Your task to perform on an android device: Open Google Chrome and open the bookmarks view Image 0: 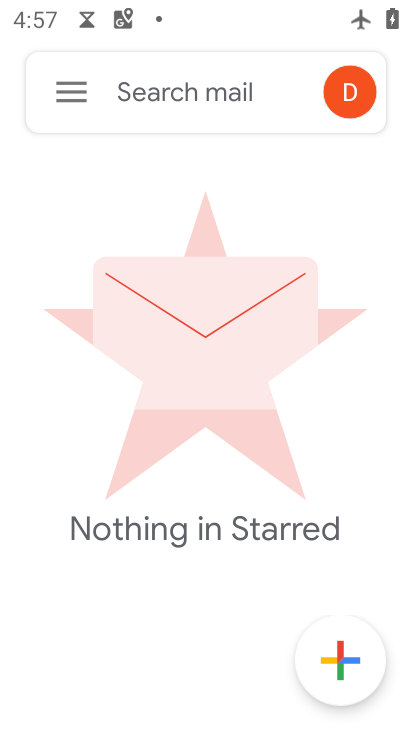
Step 0: press back button
Your task to perform on an android device: Open Google Chrome and open the bookmarks view Image 1: 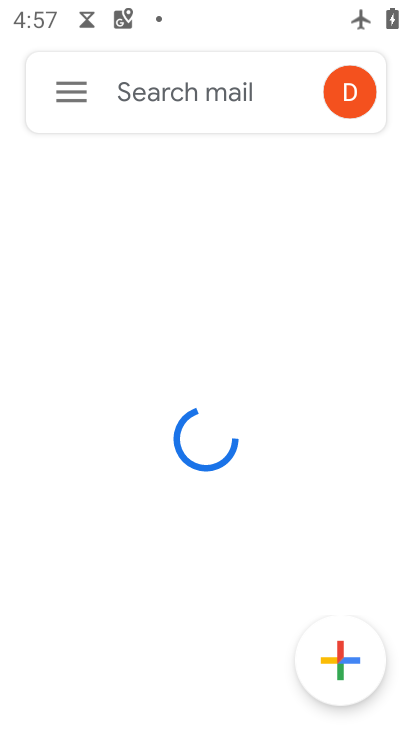
Step 1: press back button
Your task to perform on an android device: Open Google Chrome and open the bookmarks view Image 2: 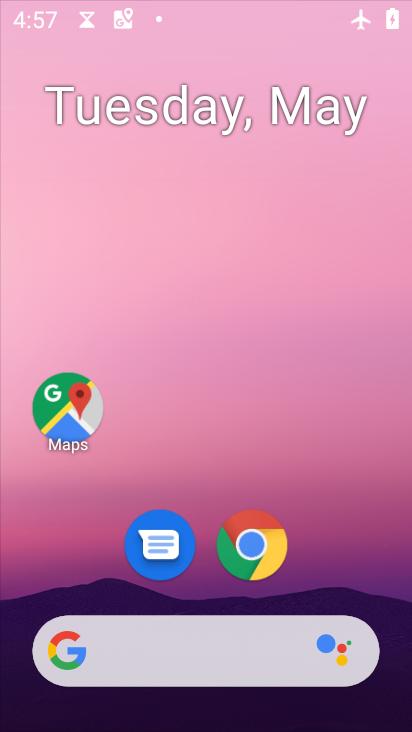
Step 2: press back button
Your task to perform on an android device: Open Google Chrome and open the bookmarks view Image 3: 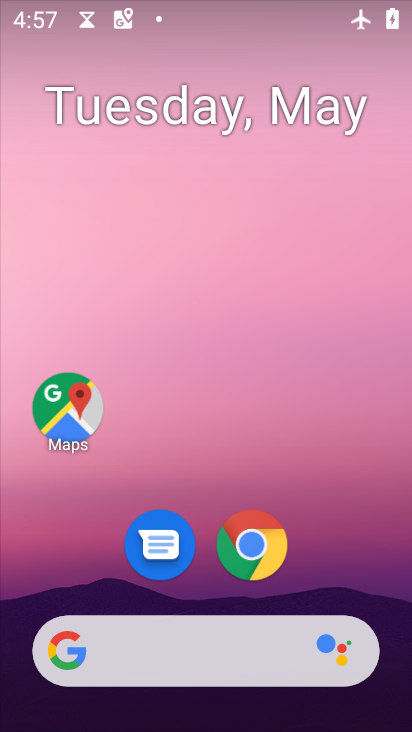
Step 3: click (254, 547)
Your task to perform on an android device: Open Google Chrome and open the bookmarks view Image 4: 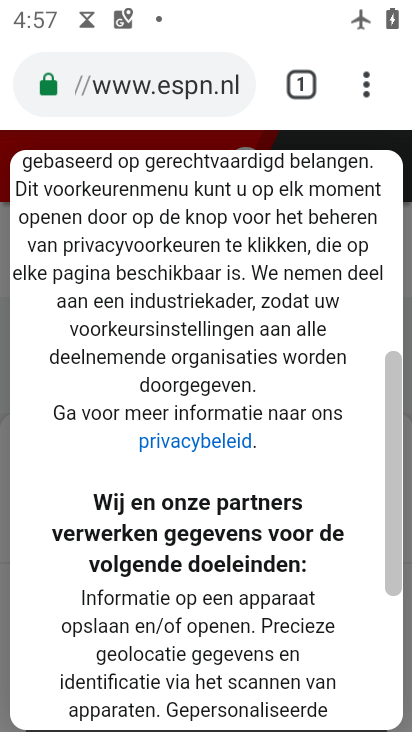
Step 4: click (366, 84)
Your task to perform on an android device: Open Google Chrome and open the bookmarks view Image 5: 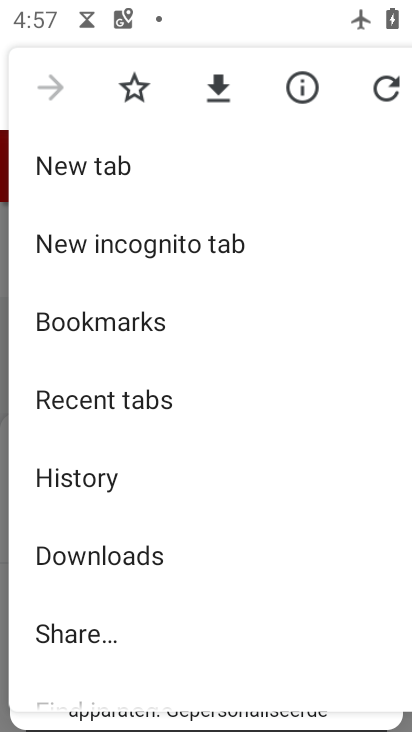
Step 5: click (117, 325)
Your task to perform on an android device: Open Google Chrome and open the bookmarks view Image 6: 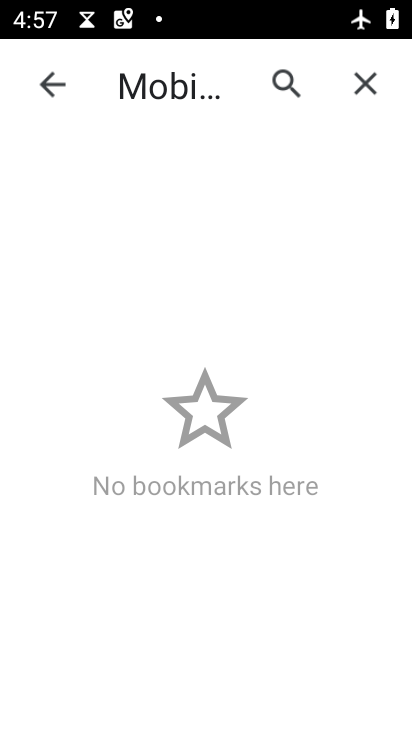
Step 6: task complete